Your task to perform on an android device: turn on the 24-hour format for clock Image 0: 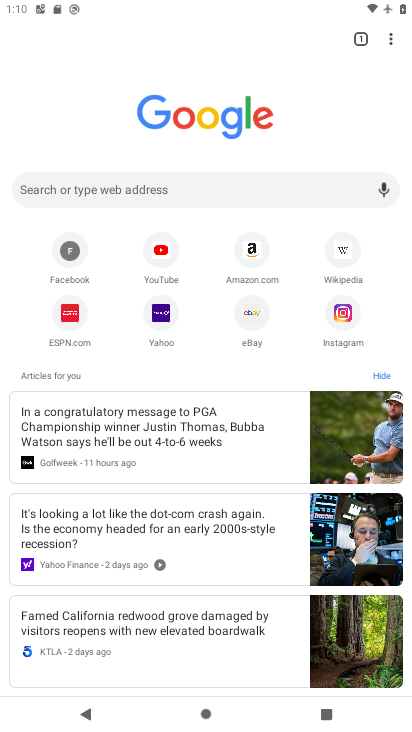
Step 0: press home button
Your task to perform on an android device: turn on the 24-hour format for clock Image 1: 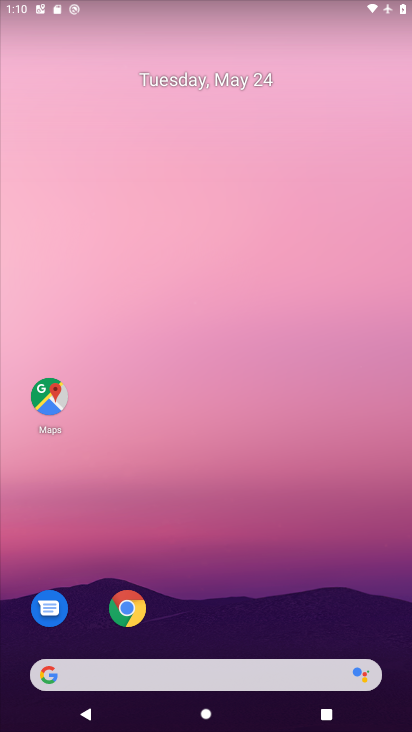
Step 1: drag from (249, 645) to (256, 11)
Your task to perform on an android device: turn on the 24-hour format for clock Image 2: 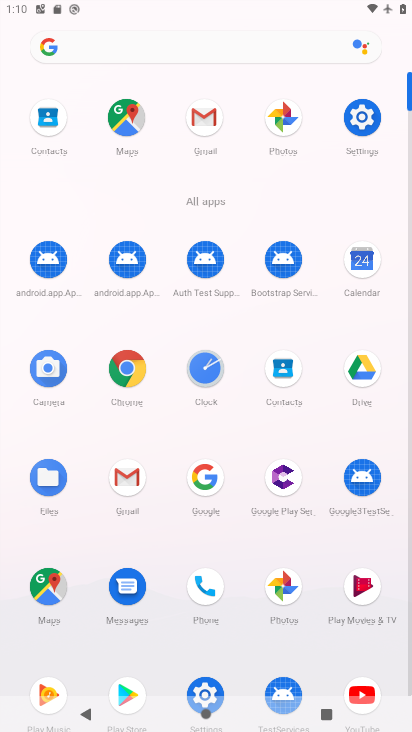
Step 2: click (200, 374)
Your task to perform on an android device: turn on the 24-hour format for clock Image 3: 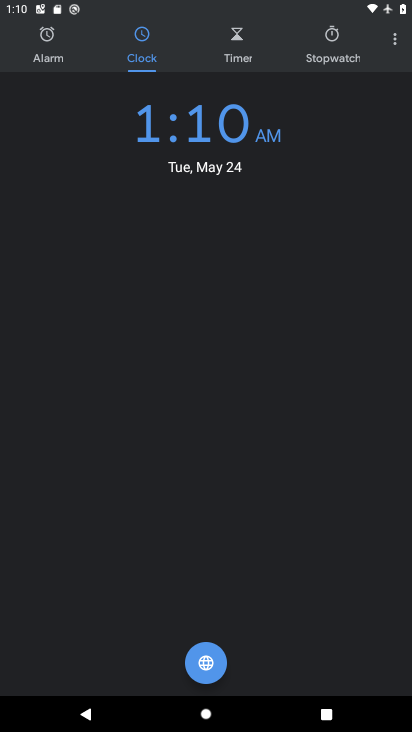
Step 3: click (391, 53)
Your task to perform on an android device: turn on the 24-hour format for clock Image 4: 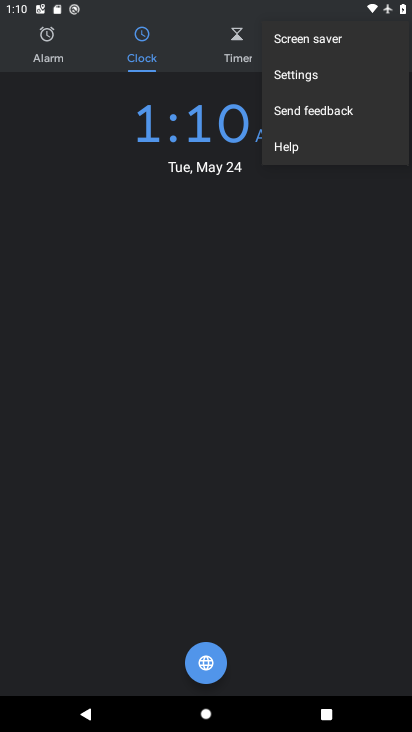
Step 4: click (317, 68)
Your task to perform on an android device: turn on the 24-hour format for clock Image 5: 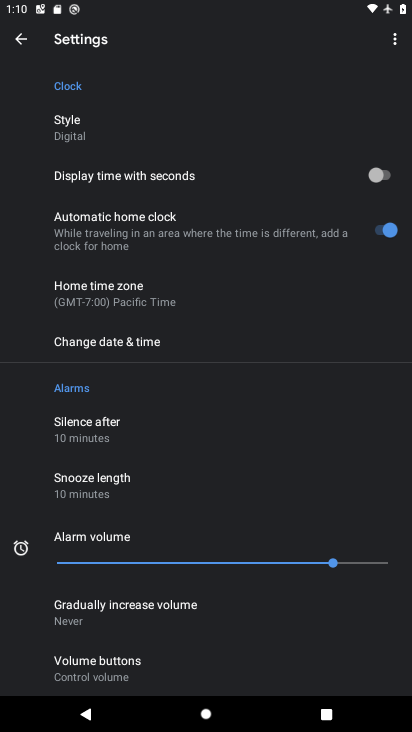
Step 5: click (206, 332)
Your task to perform on an android device: turn on the 24-hour format for clock Image 6: 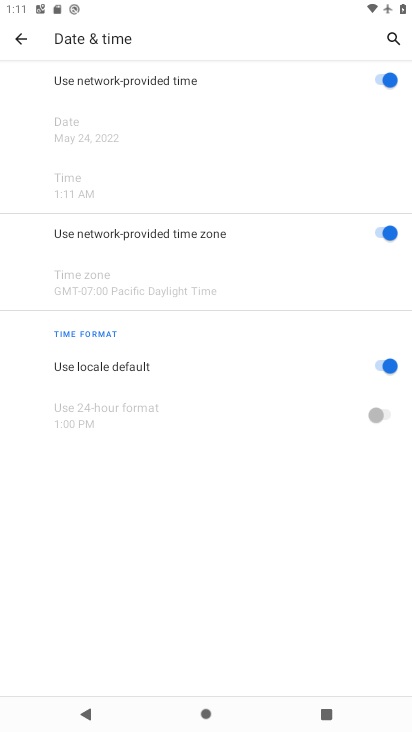
Step 6: click (354, 358)
Your task to perform on an android device: turn on the 24-hour format for clock Image 7: 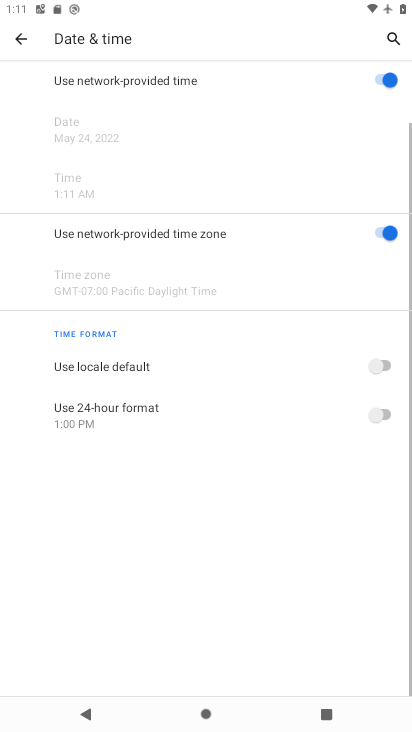
Step 7: click (372, 405)
Your task to perform on an android device: turn on the 24-hour format for clock Image 8: 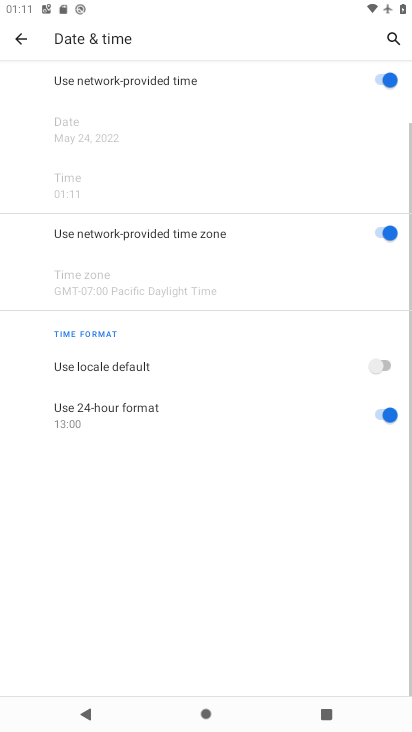
Step 8: task complete